Your task to perform on an android device: Go to Maps Image 0: 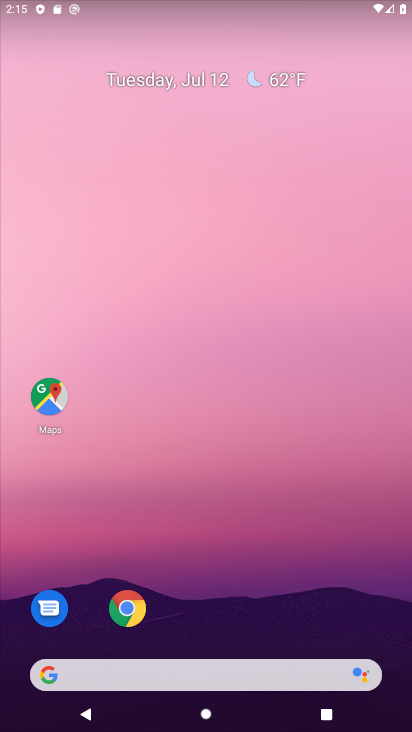
Step 0: press home button
Your task to perform on an android device: Go to Maps Image 1: 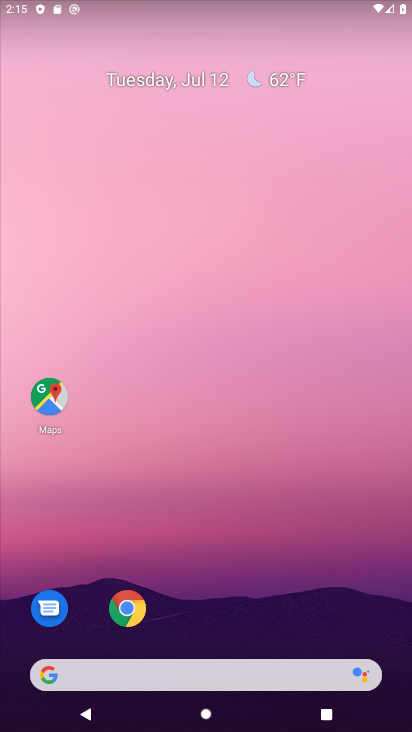
Step 1: click (51, 400)
Your task to perform on an android device: Go to Maps Image 2: 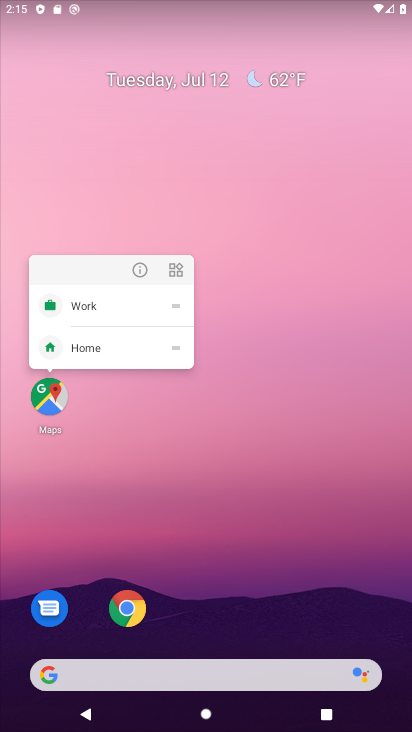
Step 2: click (39, 403)
Your task to perform on an android device: Go to Maps Image 3: 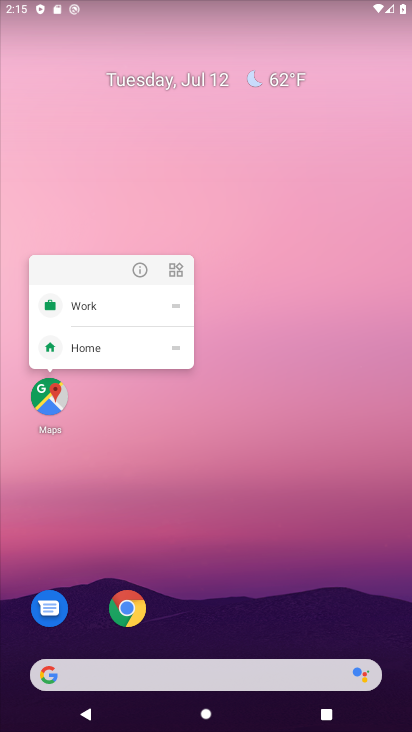
Step 3: click (48, 397)
Your task to perform on an android device: Go to Maps Image 4: 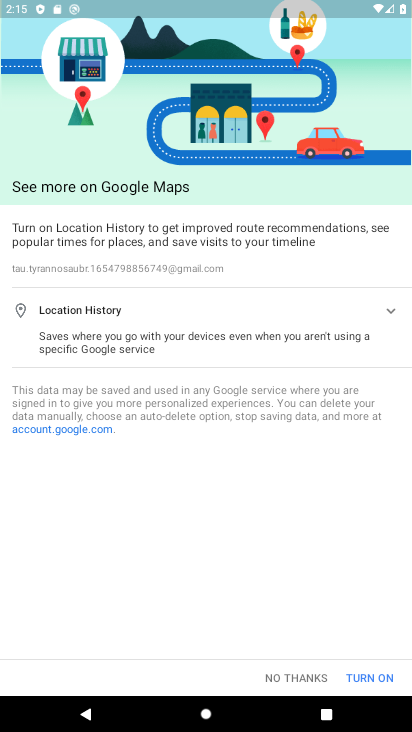
Step 4: click (296, 676)
Your task to perform on an android device: Go to Maps Image 5: 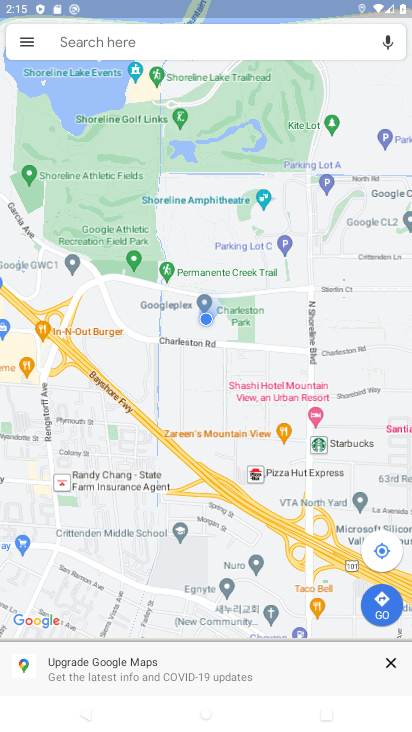
Step 5: task complete